Your task to perform on an android device: Open ESPN.com Image 0: 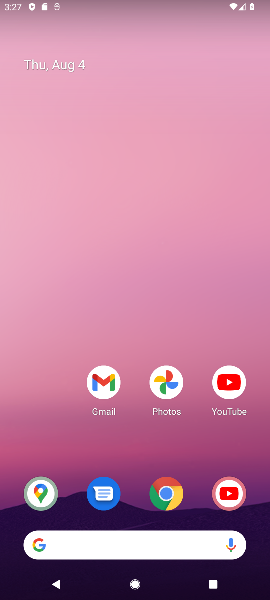
Step 0: click (157, 489)
Your task to perform on an android device: Open ESPN.com Image 1: 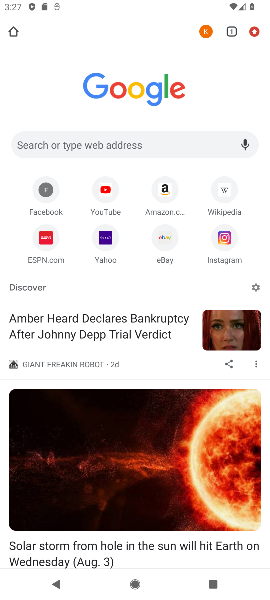
Step 1: click (53, 255)
Your task to perform on an android device: Open ESPN.com Image 2: 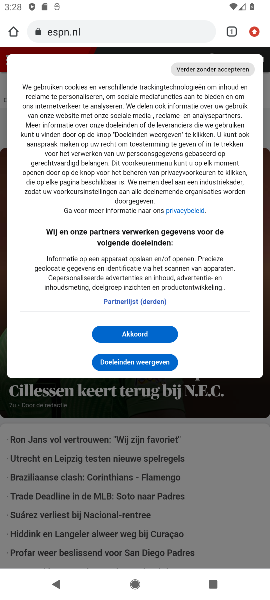
Step 2: task complete